Your task to perform on an android device: allow cookies in the chrome app Image 0: 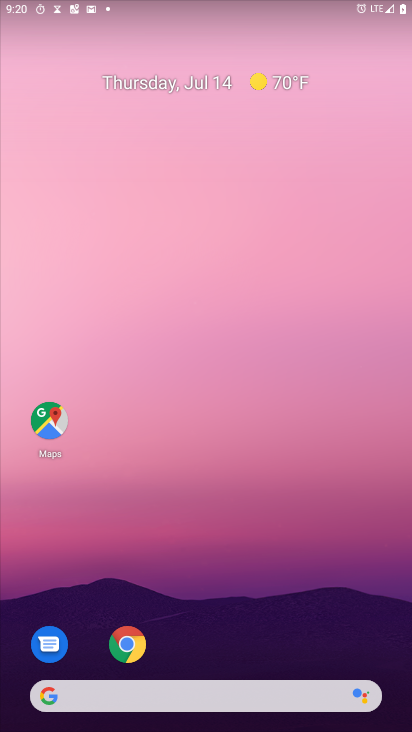
Step 0: click (124, 650)
Your task to perform on an android device: allow cookies in the chrome app Image 1: 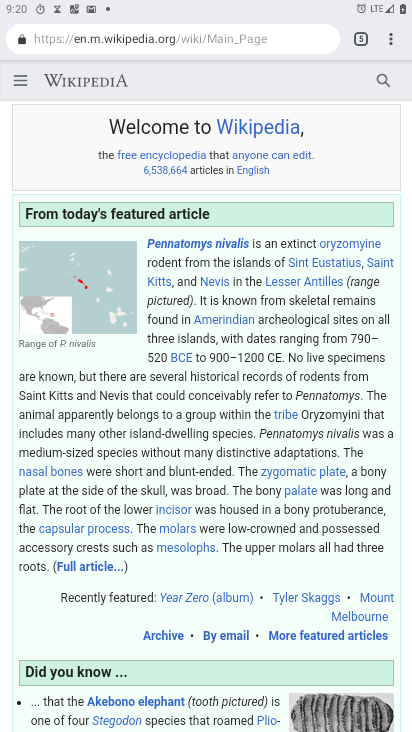
Step 1: drag from (392, 39) to (276, 505)
Your task to perform on an android device: allow cookies in the chrome app Image 2: 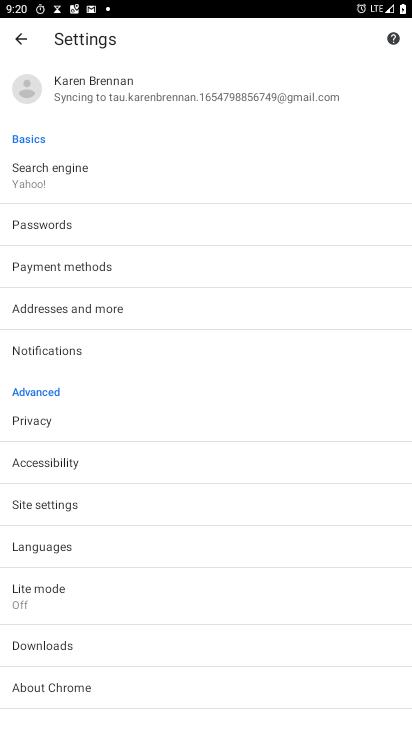
Step 2: click (68, 504)
Your task to perform on an android device: allow cookies in the chrome app Image 3: 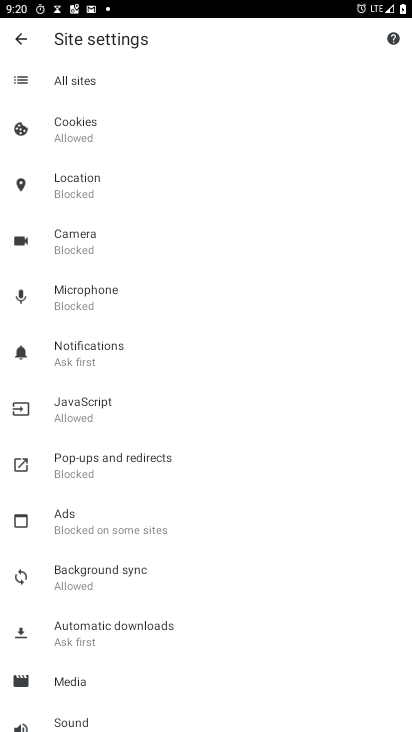
Step 3: click (97, 125)
Your task to perform on an android device: allow cookies in the chrome app Image 4: 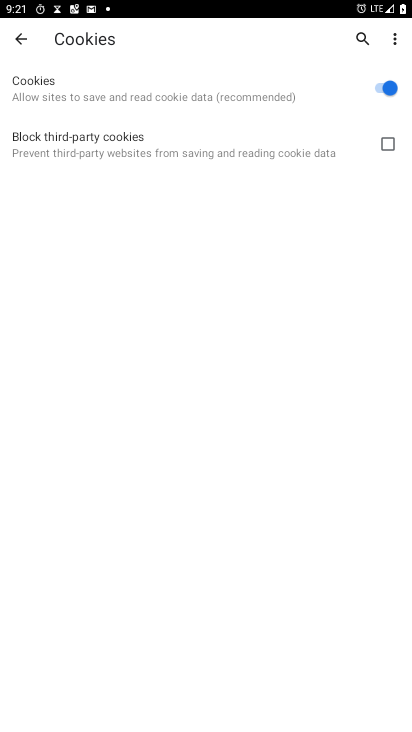
Step 4: task complete